Your task to perform on an android device: turn off location history Image 0: 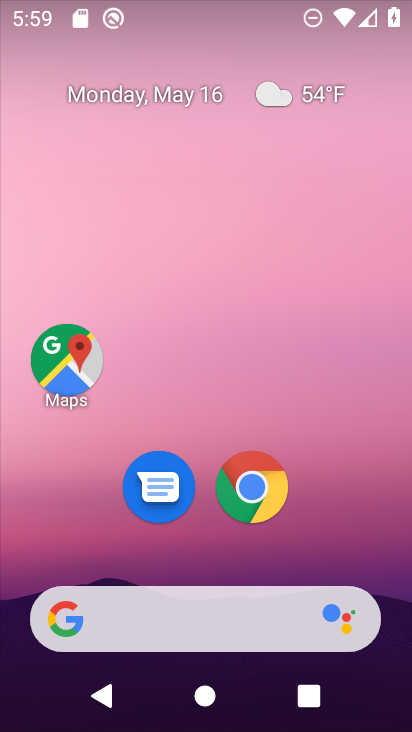
Step 0: drag from (181, 480) to (179, 154)
Your task to perform on an android device: turn off location history Image 1: 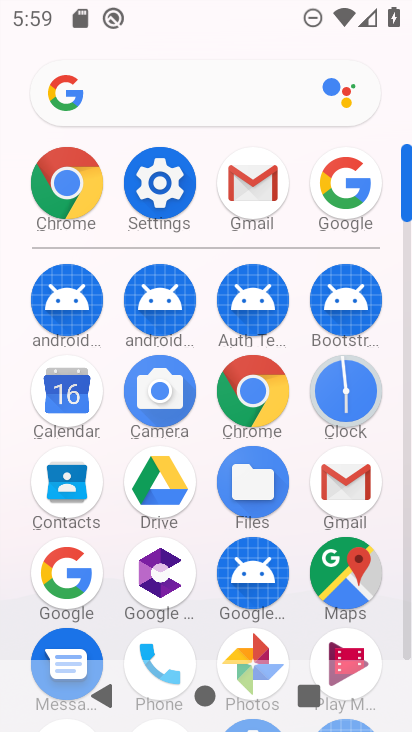
Step 1: click (172, 190)
Your task to perform on an android device: turn off location history Image 2: 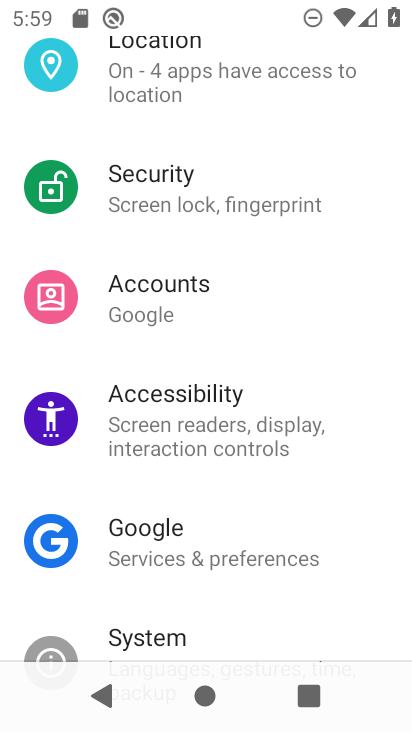
Step 2: drag from (158, 619) to (158, 240)
Your task to perform on an android device: turn off location history Image 3: 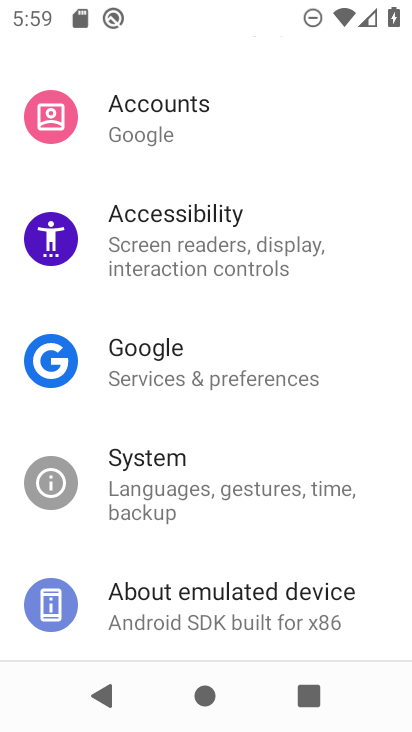
Step 3: drag from (189, 622) to (189, 324)
Your task to perform on an android device: turn off location history Image 4: 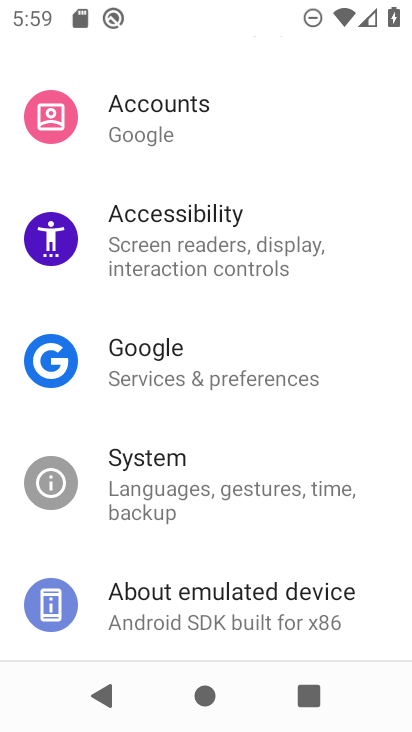
Step 4: drag from (202, 79) to (230, 427)
Your task to perform on an android device: turn off location history Image 5: 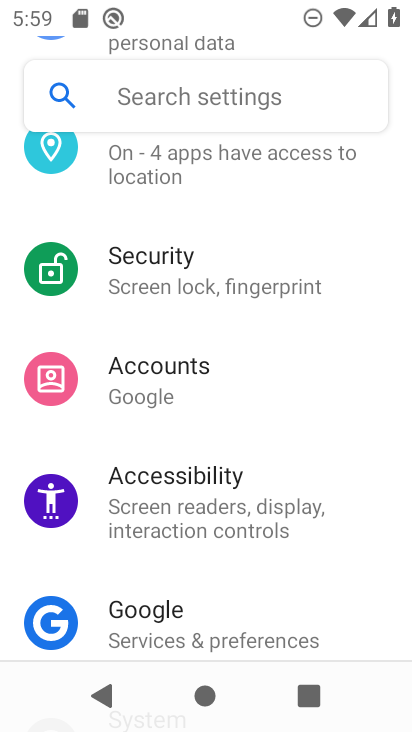
Step 5: drag from (188, 210) to (196, 524)
Your task to perform on an android device: turn off location history Image 6: 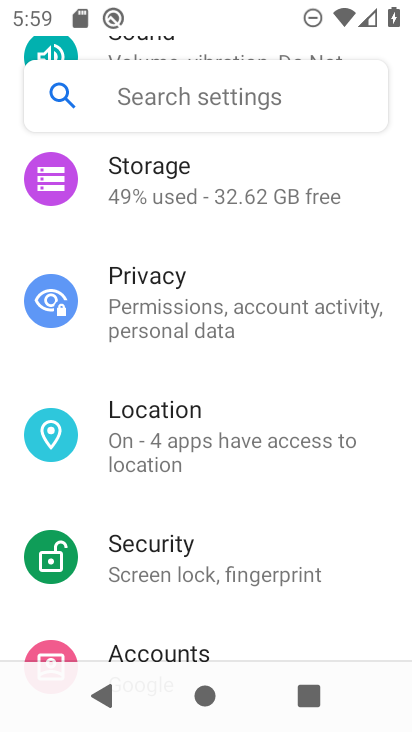
Step 6: click (186, 407)
Your task to perform on an android device: turn off location history Image 7: 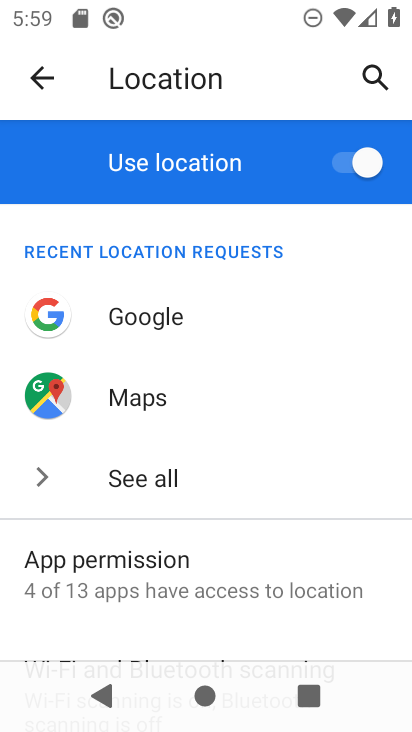
Step 7: drag from (213, 512) to (206, 202)
Your task to perform on an android device: turn off location history Image 8: 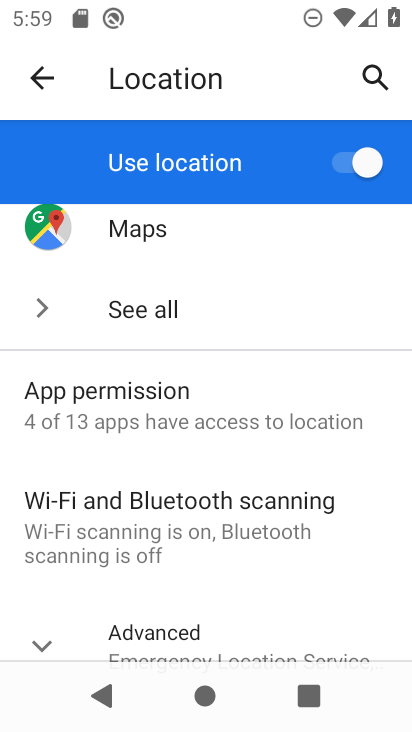
Step 8: click (98, 630)
Your task to perform on an android device: turn off location history Image 9: 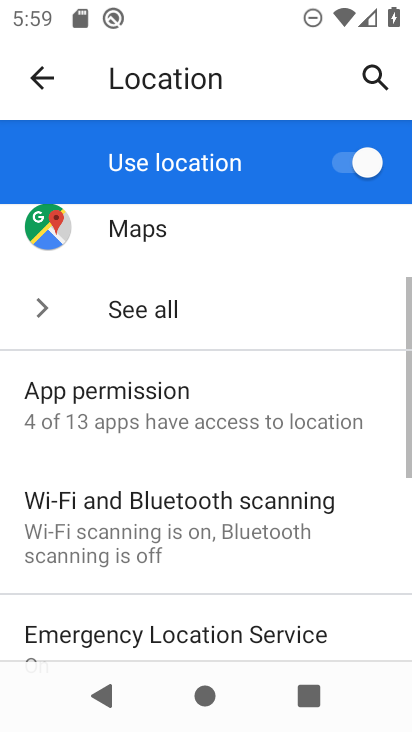
Step 9: drag from (147, 643) to (175, 305)
Your task to perform on an android device: turn off location history Image 10: 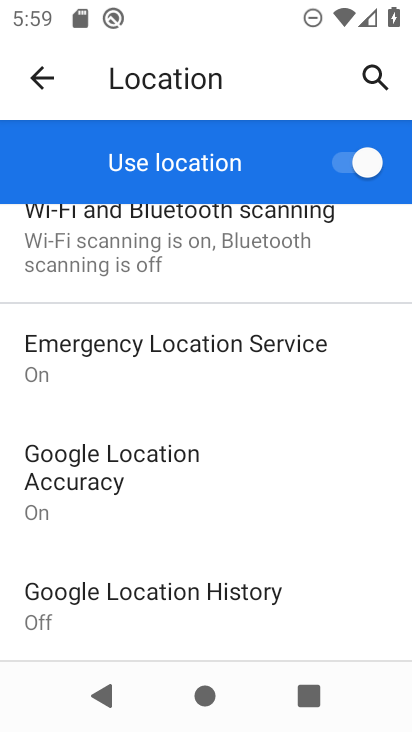
Step 10: click (99, 595)
Your task to perform on an android device: turn off location history Image 11: 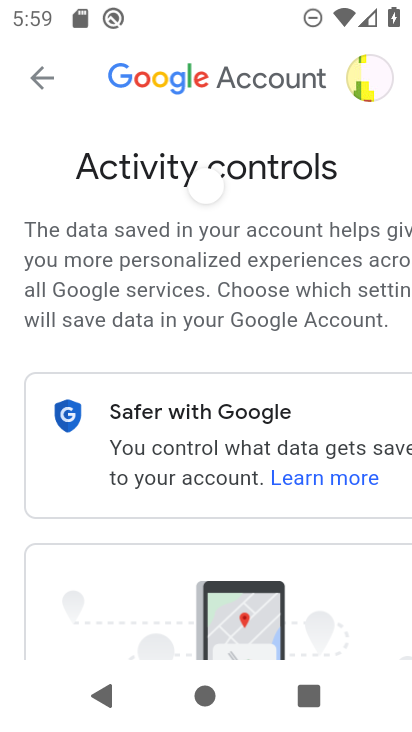
Step 11: drag from (223, 614) to (222, 323)
Your task to perform on an android device: turn off location history Image 12: 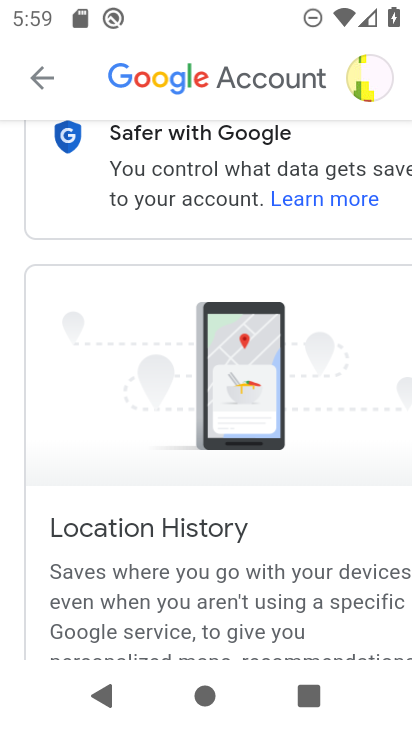
Step 12: drag from (232, 636) to (239, 374)
Your task to perform on an android device: turn off location history Image 13: 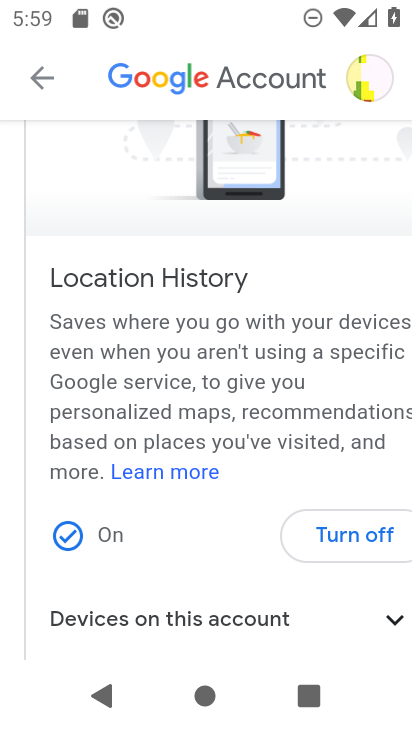
Step 13: click (336, 539)
Your task to perform on an android device: turn off location history Image 14: 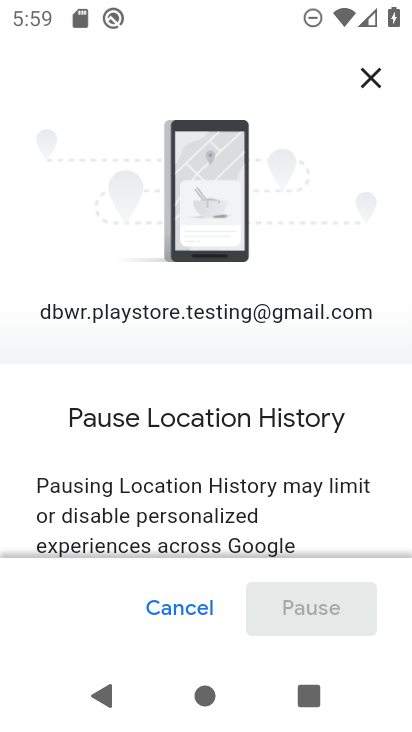
Step 14: drag from (287, 542) to (292, 178)
Your task to perform on an android device: turn off location history Image 15: 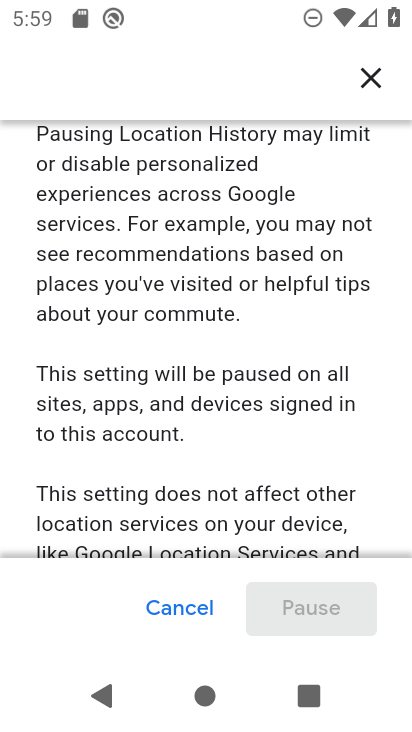
Step 15: drag from (279, 510) to (279, 204)
Your task to perform on an android device: turn off location history Image 16: 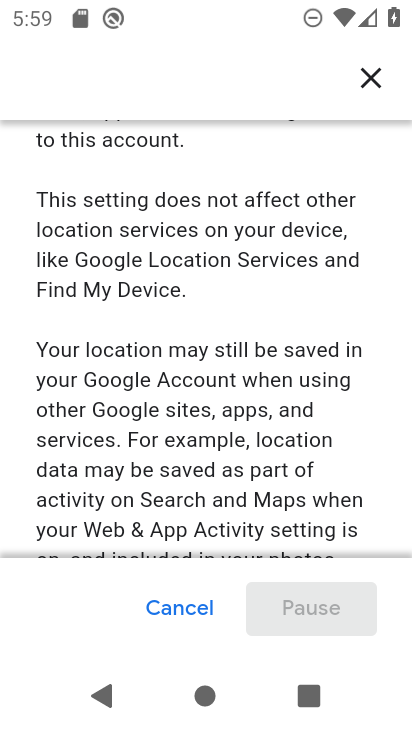
Step 16: drag from (256, 518) to (256, 328)
Your task to perform on an android device: turn off location history Image 17: 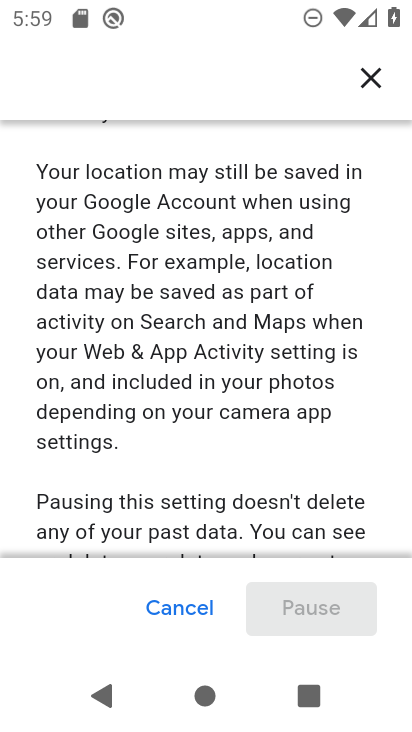
Step 17: drag from (262, 538) to (278, 357)
Your task to perform on an android device: turn off location history Image 18: 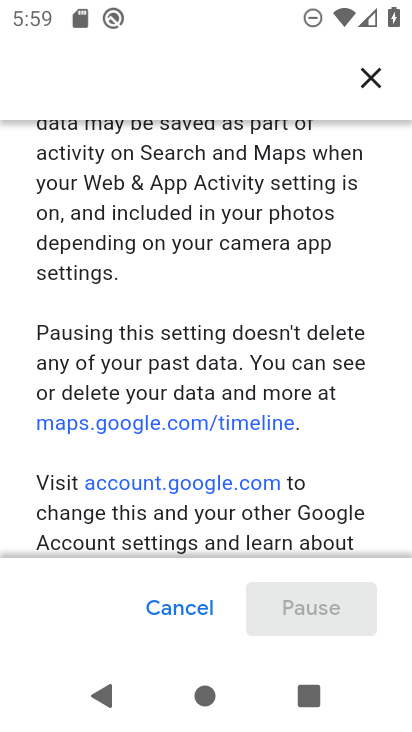
Step 18: drag from (248, 540) to (286, 295)
Your task to perform on an android device: turn off location history Image 19: 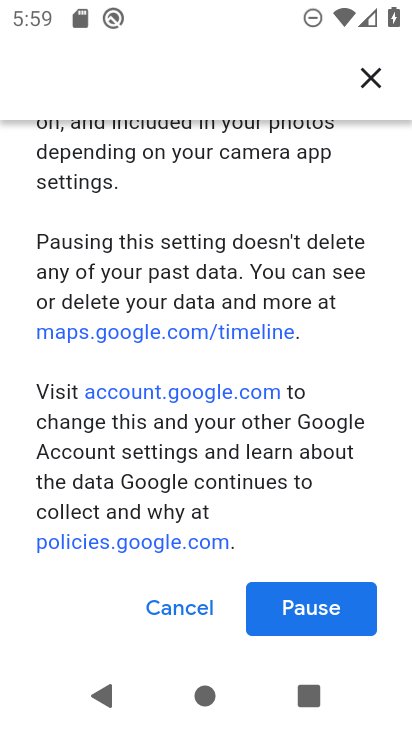
Step 19: click (281, 618)
Your task to perform on an android device: turn off location history Image 20: 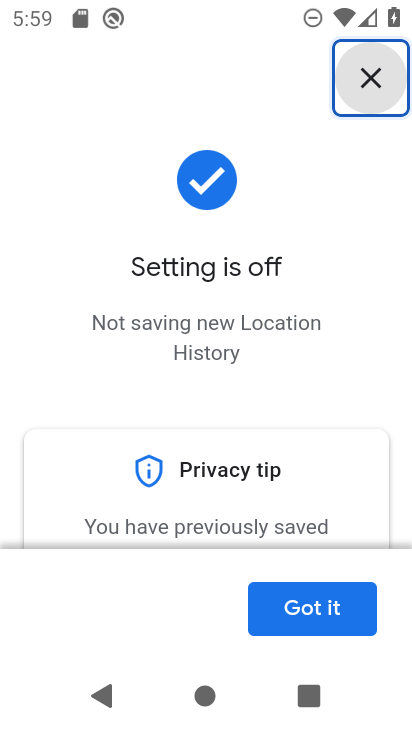
Step 20: click (293, 616)
Your task to perform on an android device: turn off location history Image 21: 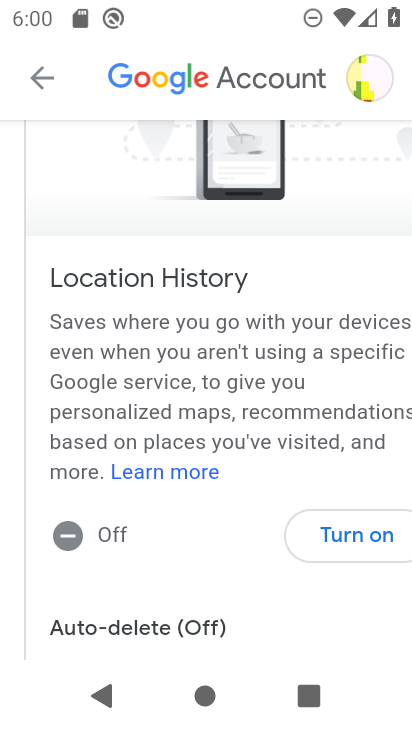
Step 21: task complete